Your task to perform on an android device: Open internet settings Image 0: 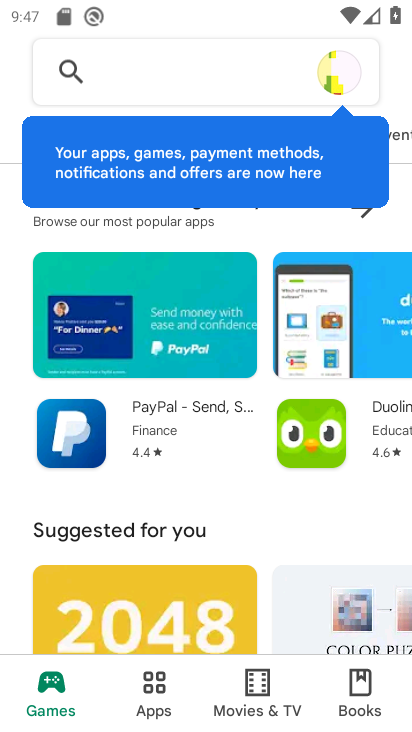
Step 0: press home button
Your task to perform on an android device: Open internet settings Image 1: 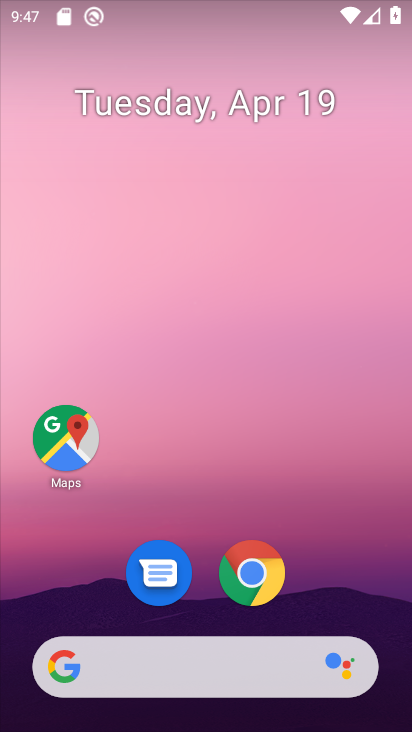
Step 1: drag from (352, 579) to (365, 100)
Your task to perform on an android device: Open internet settings Image 2: 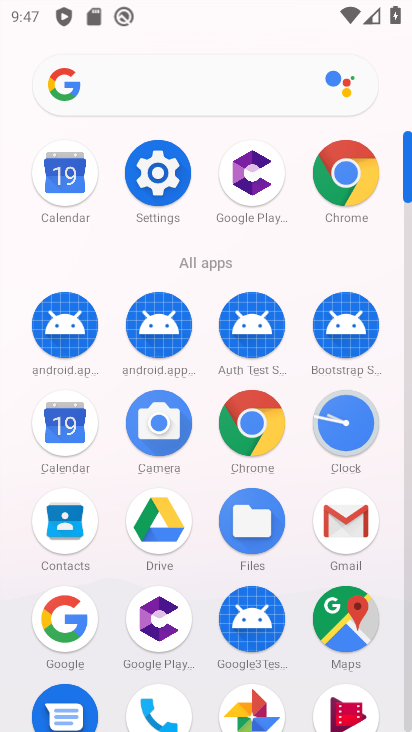
Step 2: click (157, 188)
Your task to perform on an android device: Open internet settings Image 3: 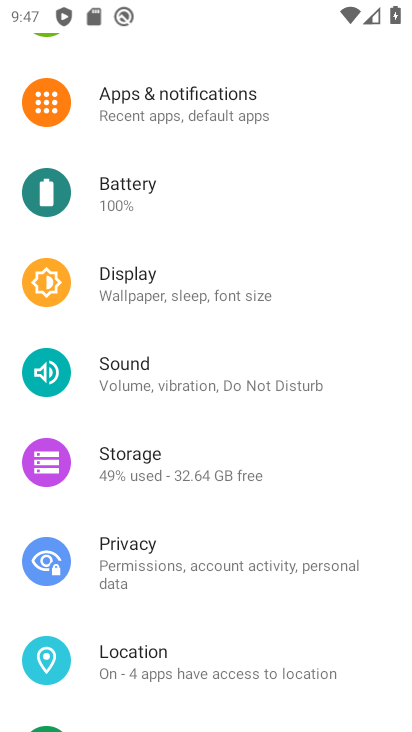
Step 3: drag from (371, 607) to (381, 311)
Your task to perform on an android device: Open internet settings Image 4: 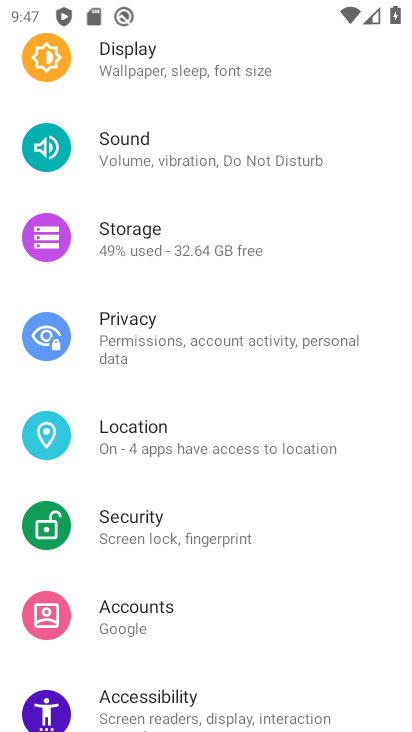
Step 4: drag from (354, 596) to (376, 290)
Your task to perform on an android device: Open internet settings Image 5: 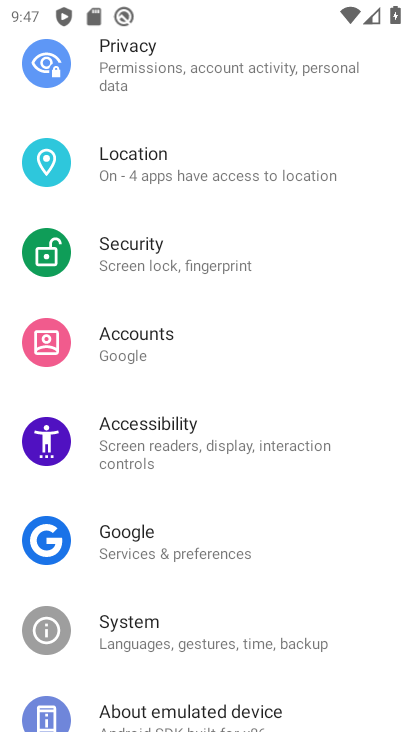
Step 5: drag from (358, 640) to (386, 294)
Your task to perform on an android device: Open internet settings Image 6: 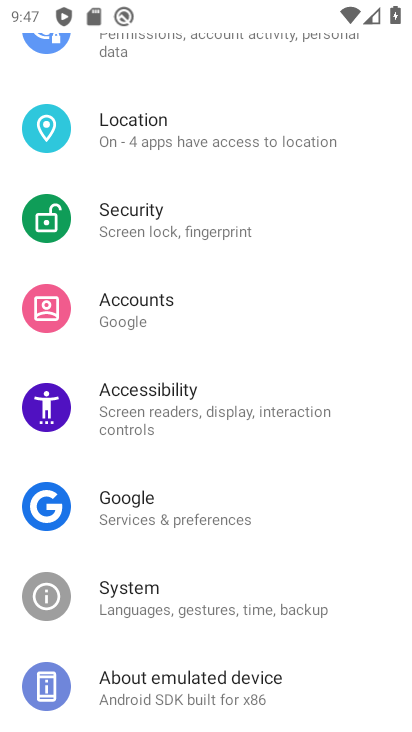
Step 6: drag from (377, 213) to (366, 549)
Your task to perform on an android device: Open internet settings Image 7: 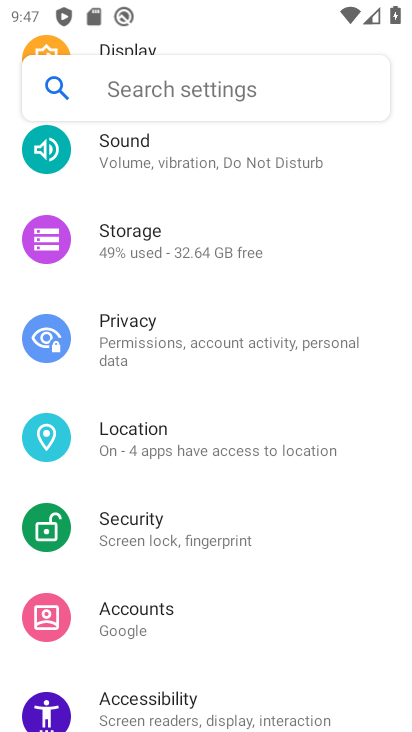
Step 7: drag from (380, 292) to (371, 530)
Your task to perform on an android device: Open internet settings Image 8: 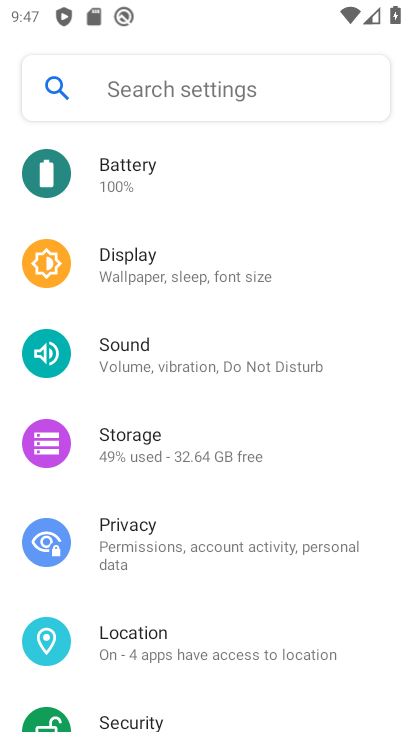
Step 8: drag from (378, 263) to (355, 495)
Your task to perform on an android device: Open internet settings Image 9: 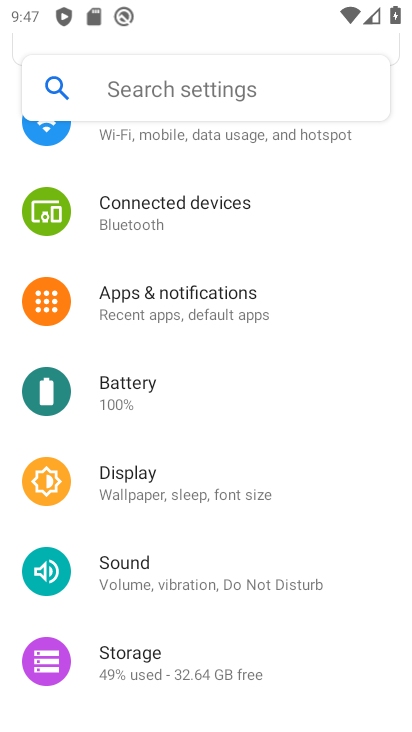
Step 9: drag from (368, 259) to (370, 476)
Your task to perform on an android device: Open internet settings Image 10: 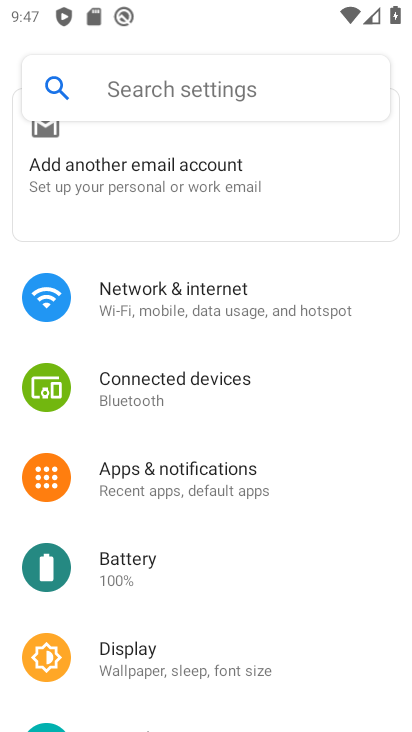
Step 10: click (222, 310)
Your task to perform on an android device: Open internet settings Image 11: 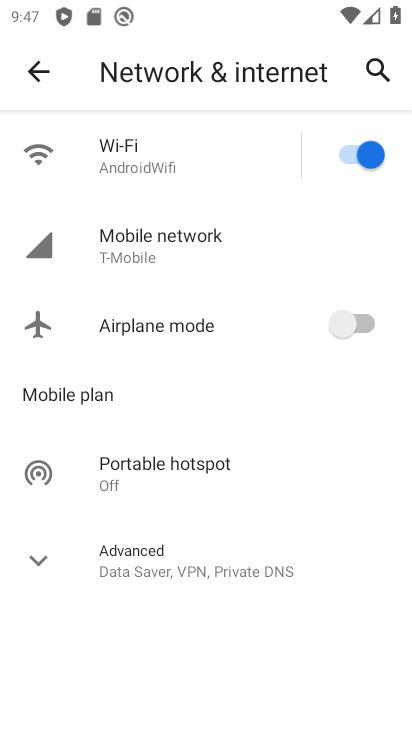
Step 11: task complete